Your task to perform on an android device: Open Wikipedia Image 0: 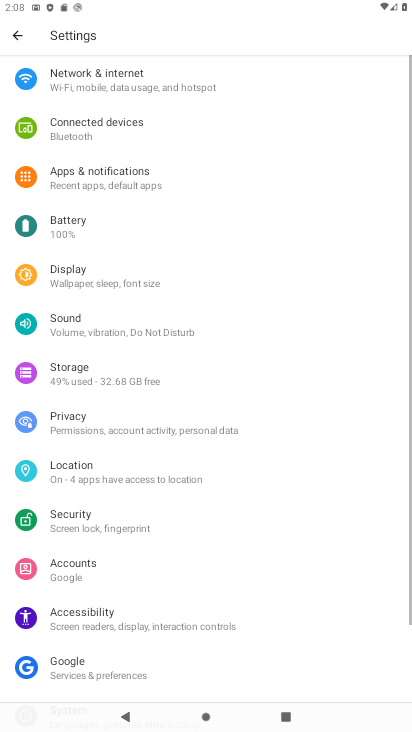
Step 0: press home button
Your task to perform on an android device: Open Wikipedia Image 1: 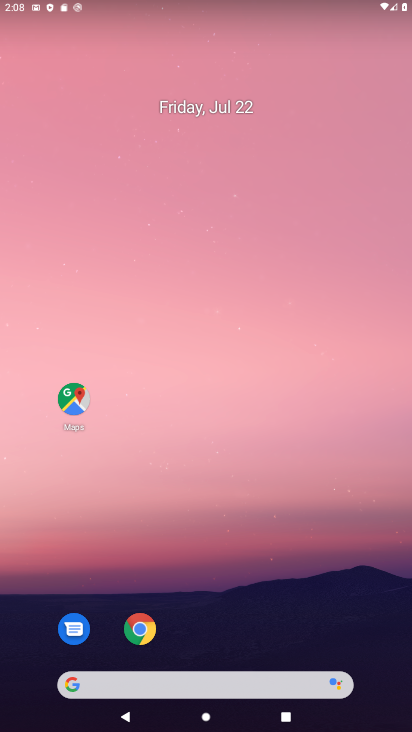
Step 1: drag from (221, 635) to (211, 119)
Your task to perform on an android device: Open Wikipedia Image 2: 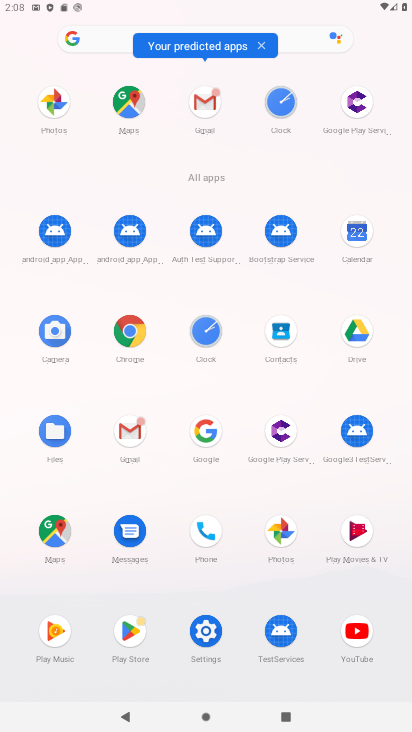
Step 2: click (122, 339)
Your task to perform on an android device: Open Wikipedia Image 3: 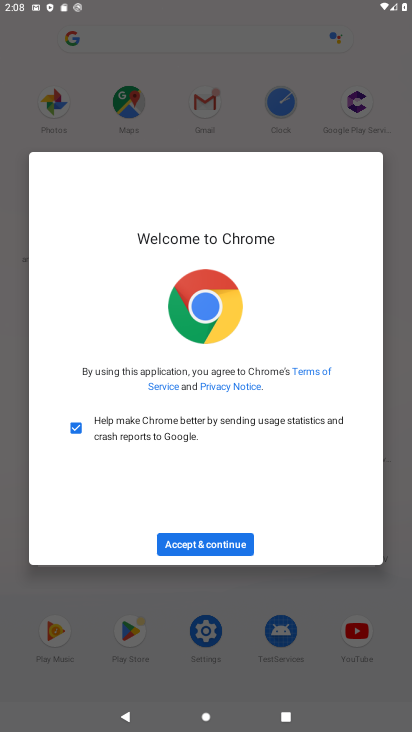
Step 3: click (253, 543)
Your task to perform on an android device: Open Wikipedia Image 4: 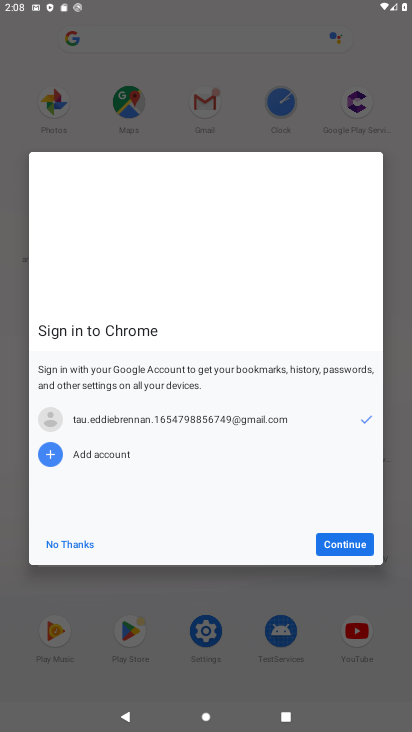
Step 4: click (341, 540)
Your task to perform on an android device: Open Wikipedia Image 5: 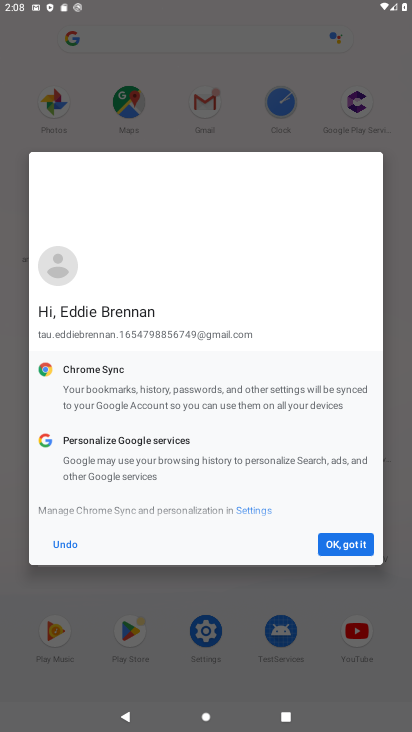
Step 5: click (341, 540)
Your task to perform on an android device: Open Wikipedia Image 6: 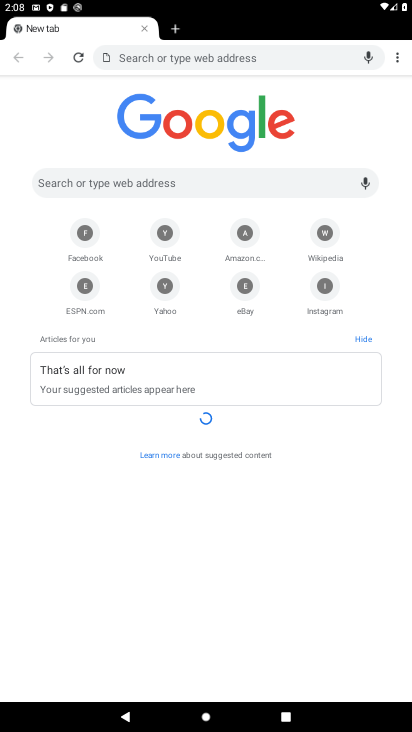
Step 6: click (320, 240)
Your task to perform on an android device: Open Wikipedia Image 7: 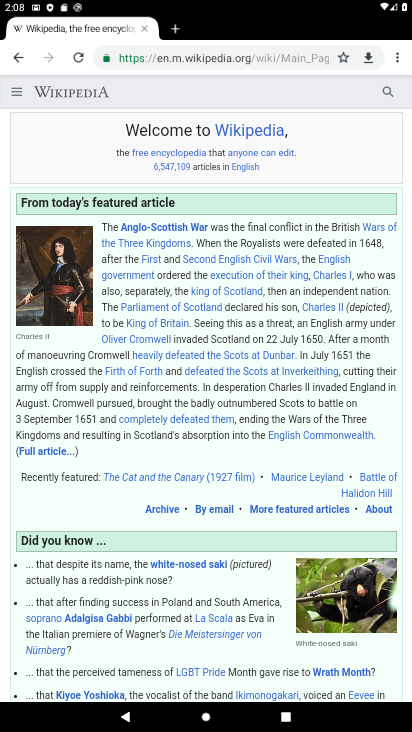
Step 7: task complete